Your task to perform on an android device: open chrome privacy settings Image 0: 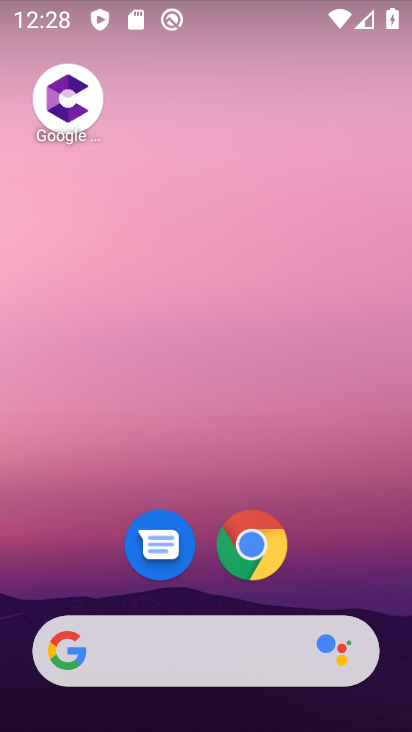
Step 0: drag from (285, 588) to (293, 290)
Your task to perform on an android device: open chrome privacy settings Image 1: 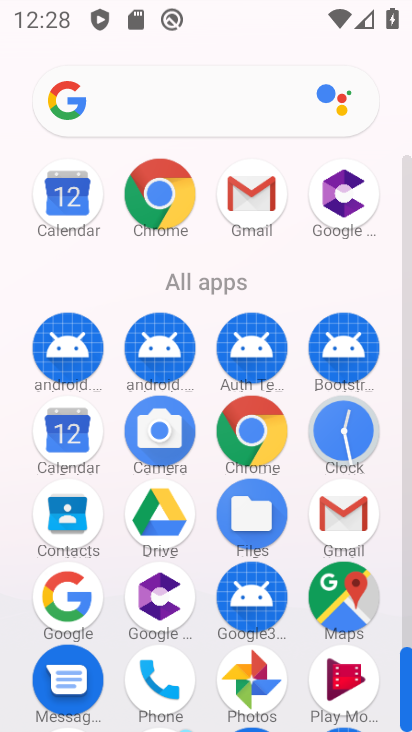
Step 1: click (258, 434)
Your task to perform on an android device: open chrome privacy settings Image 2: 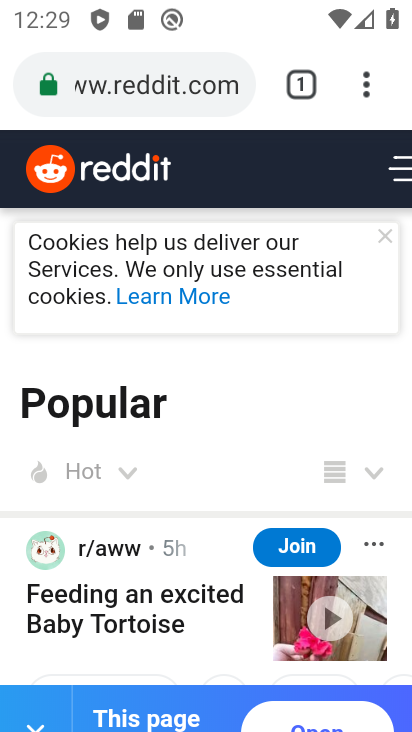
Step 2: click (356, 82)
Your task to perform on an android device: open chrome privacy settings Image 3: 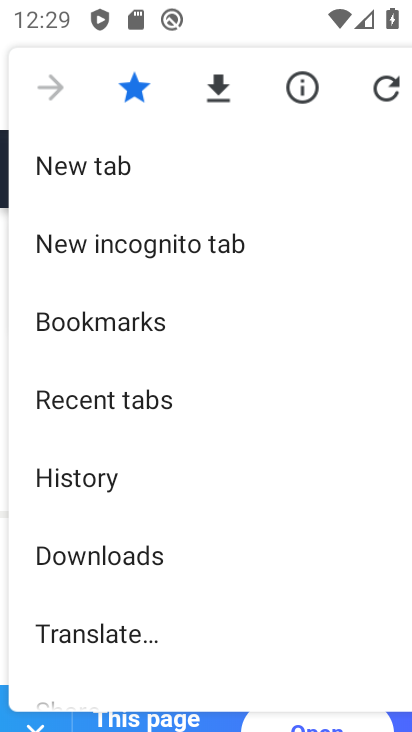
Step 3: drag from (136, 557) to (161, 209)
Your task to perform on an android device: open chrome privacy settings Image 4: 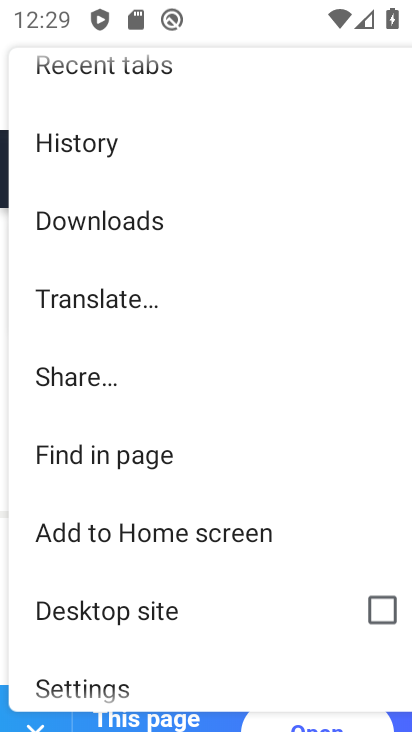
Step 4: drag from (149, 613) to (136, 205)
Your task to perform on an android device: open chrome privacy settings Image 5: 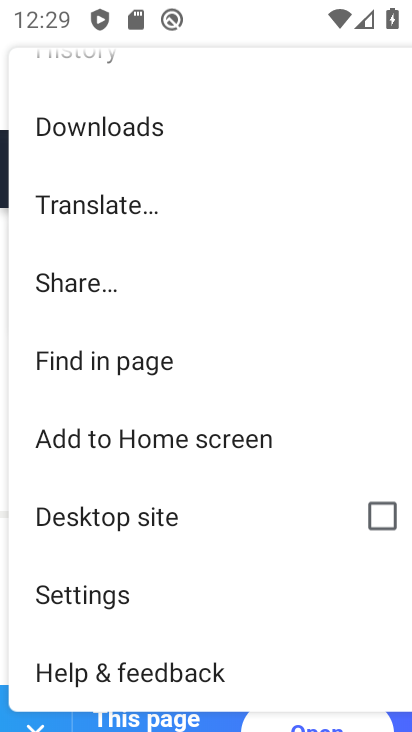
Step 5: click (131, 600)
Your task to perform on an android device: open chrome privacy settings Image 6: 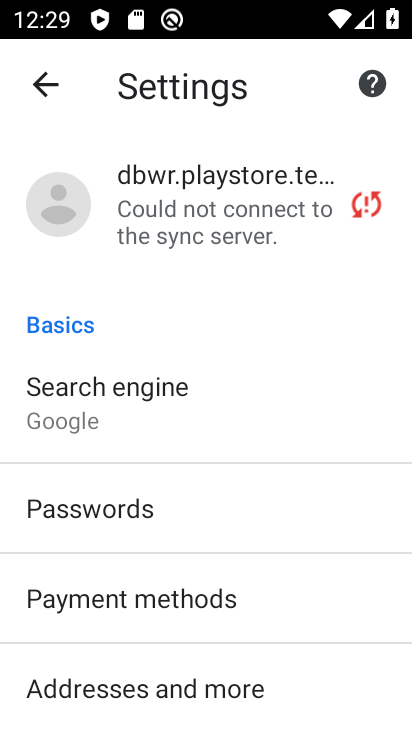
Step 6: drag from (161, 577) to (205, 279)
Your task to perform on an android device: open chrome privacy settings Image 7: 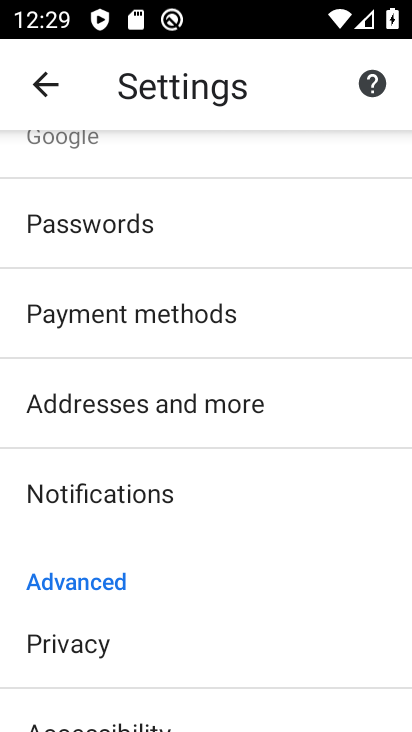
Step 7: click (128, 646)
Your task to perform on an android device: open chrome privacy settings Image 8: 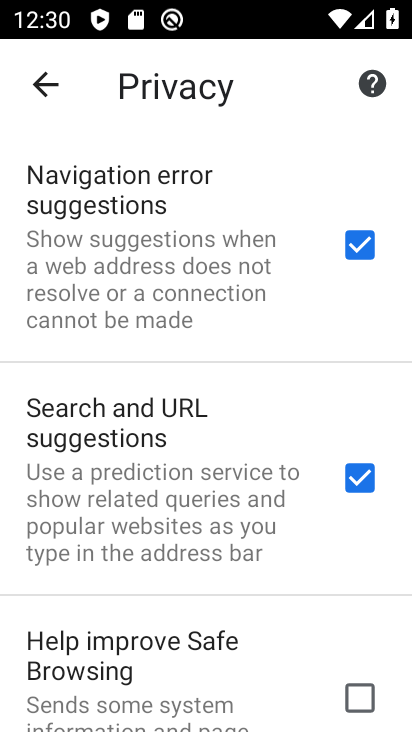
Step 8: task complete